Your task to perform on an android device: Show the shopping cart on walmart. Search for acer nitro on walmart, select the first entry, add it to the cart, then select checkout. Image 0: 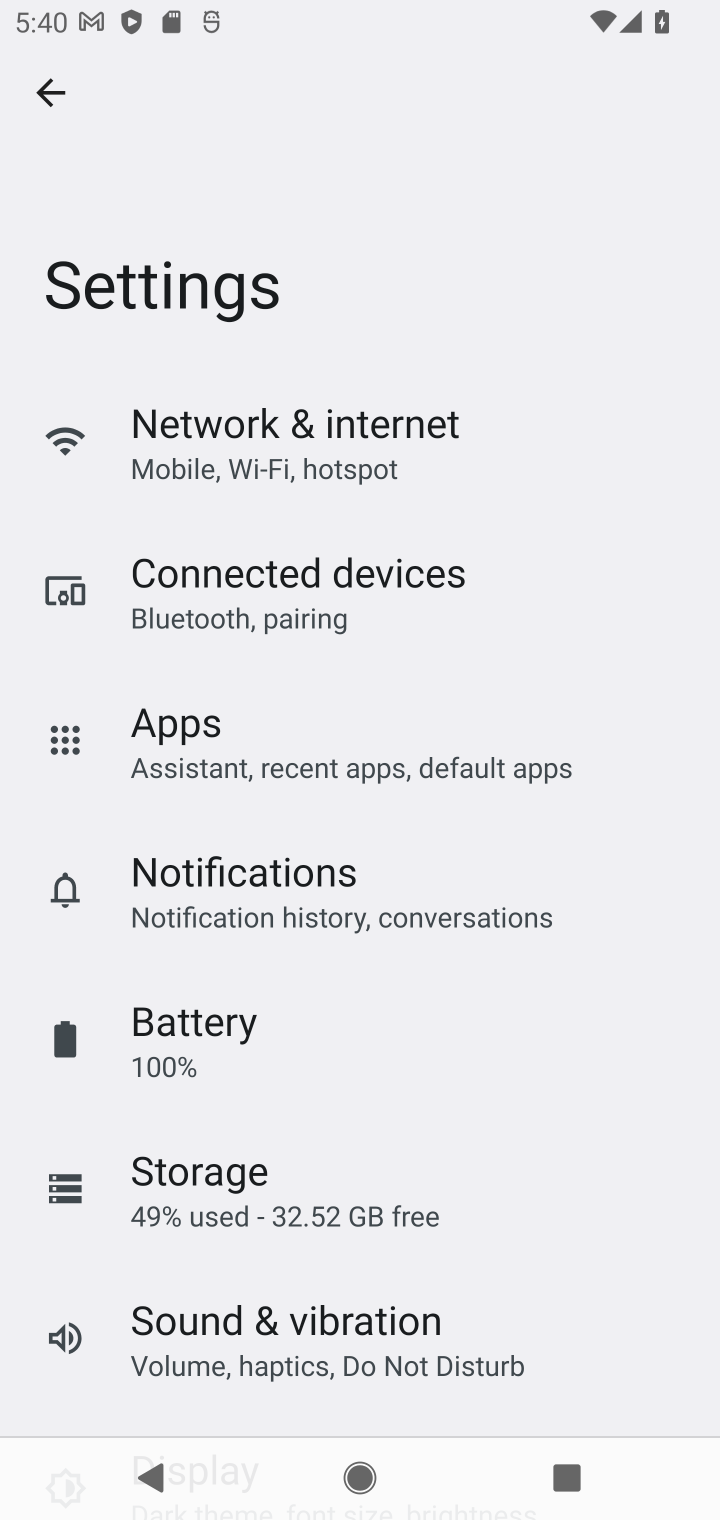
Step 0: press home button
Your task to perform on an android device: Show the shopping cart on walmart. Search for acer nitro on walmart, select the first entry, add it to the cart, then select checkout. Image 1: 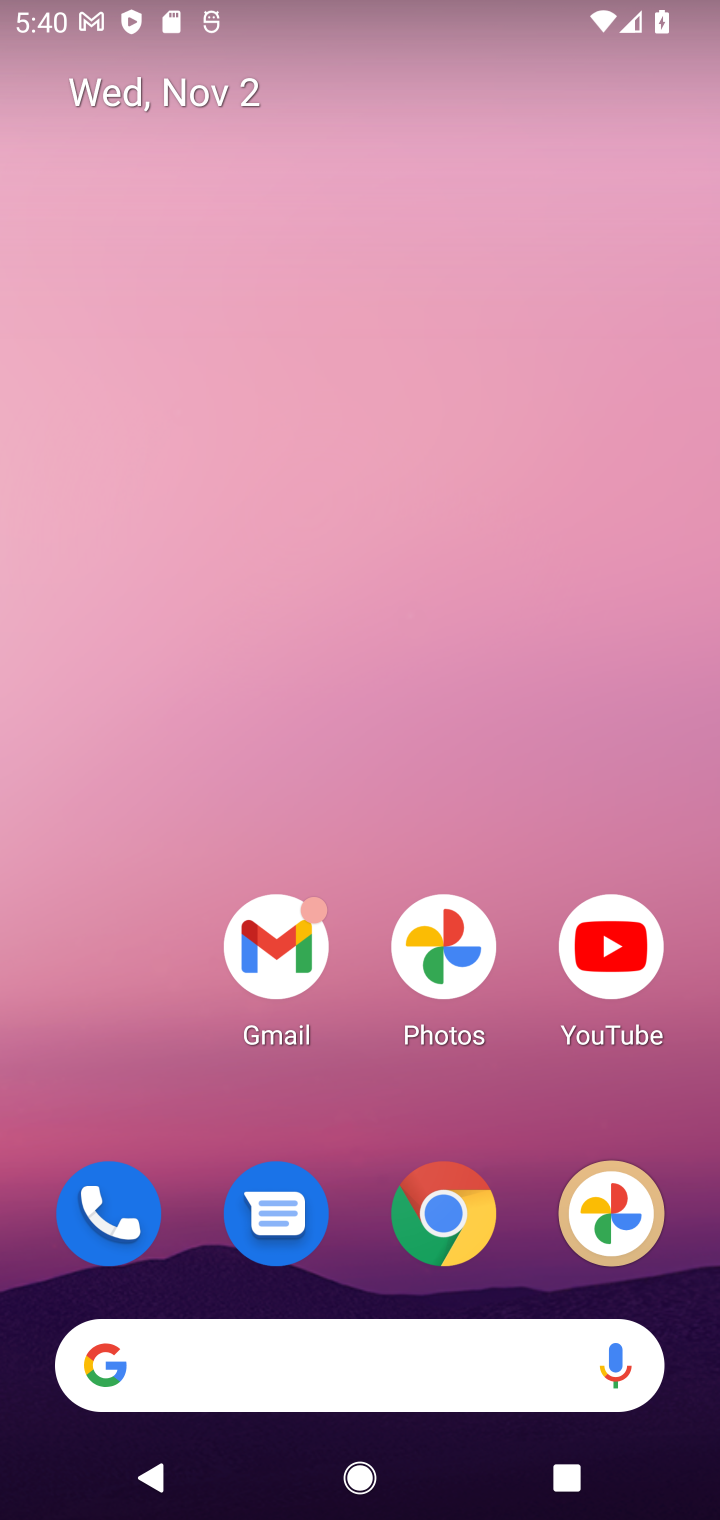
Step 1: click (442, 1214)
Your task to perform on an android device: Show the shopping cart on walmart. Search for acer nitro on walmart, select the first entry, add it to the cart, then select checkout. Image 2: 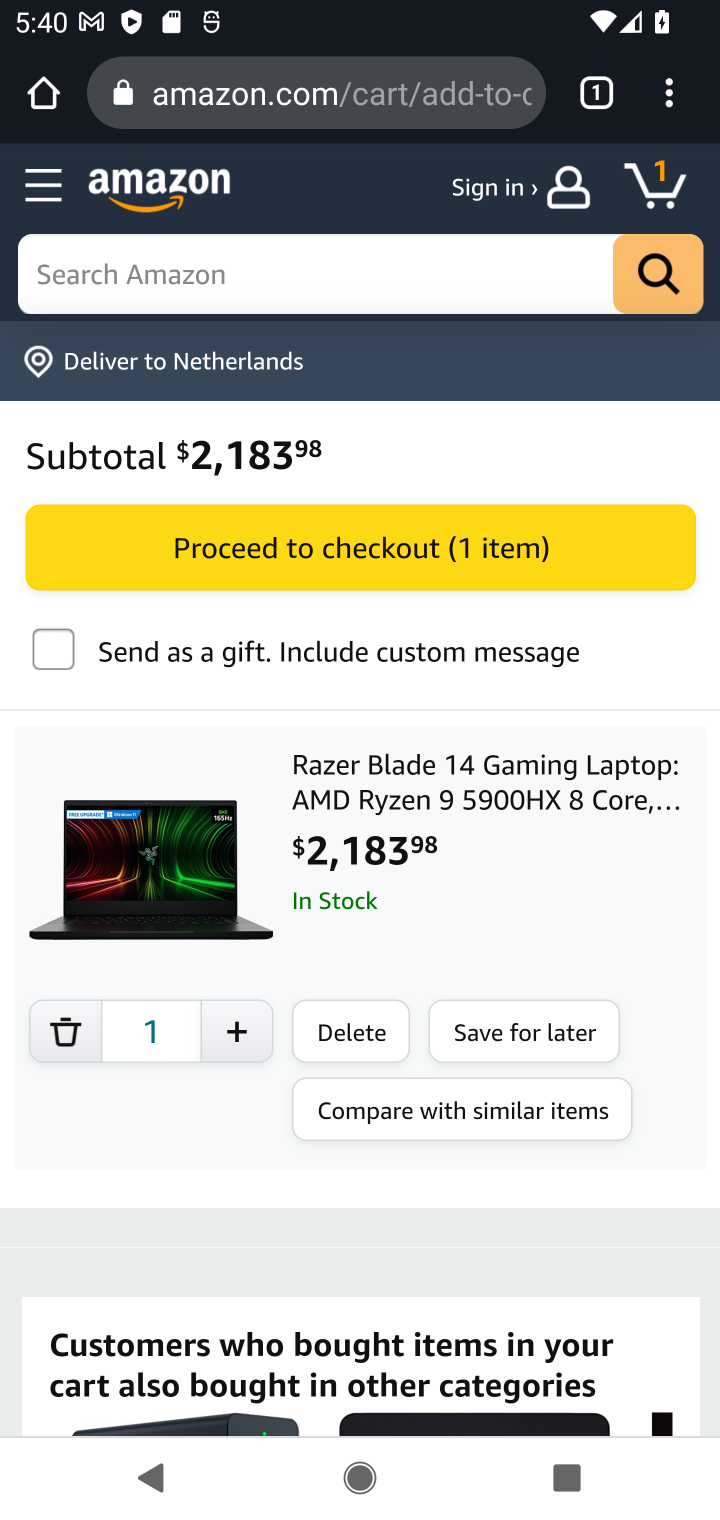
Step 2: click (347, 63)
Your task to perform on an android device: Show the shopping cart on walmart. Search for acer nitro on walmart, select the first entry, add it to the cart, then select checkout. Image 3: 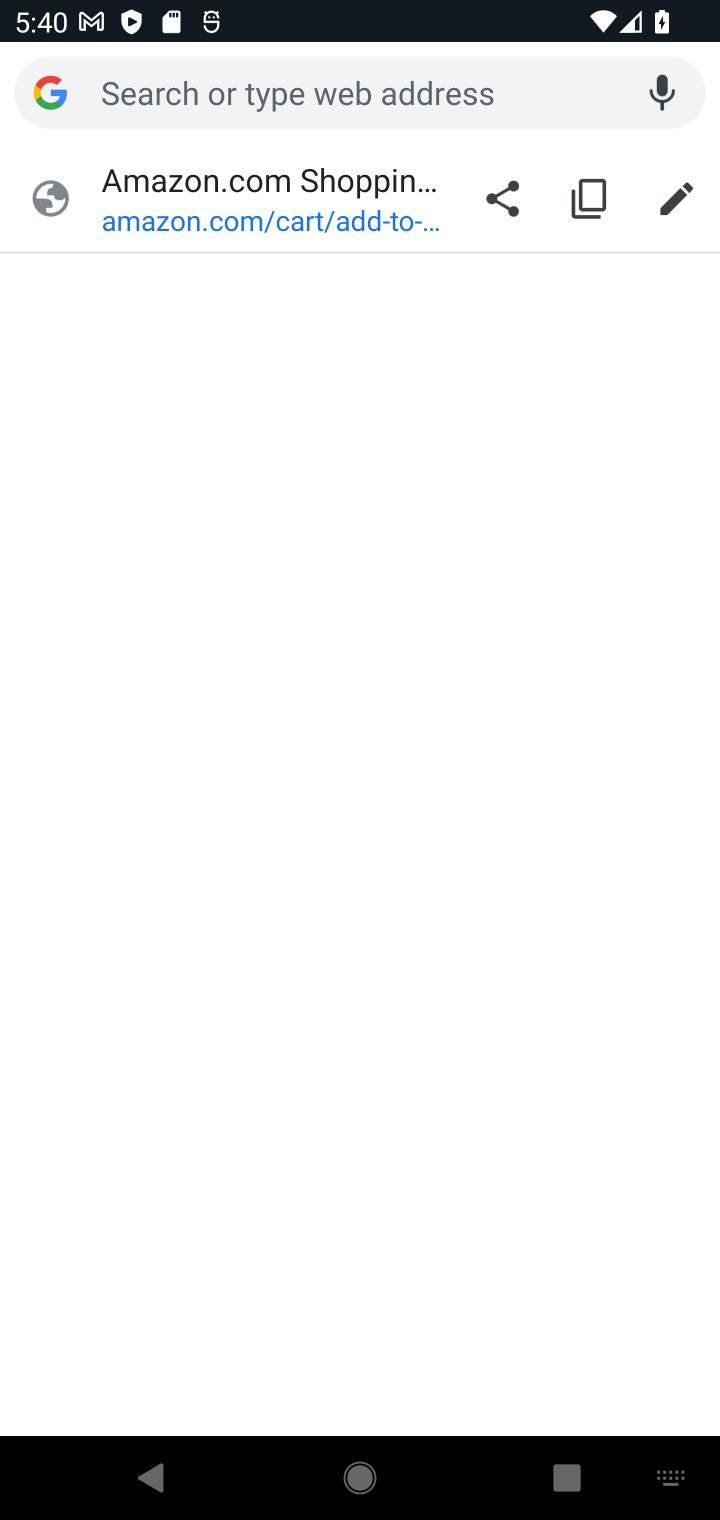
Step 3: type "walmart"
Your task to perform on an android device: Show the shopping cart on walmart. Search for acer nitro on walmart, select the first entry, add it to the cart, then select checkout. Image 4: 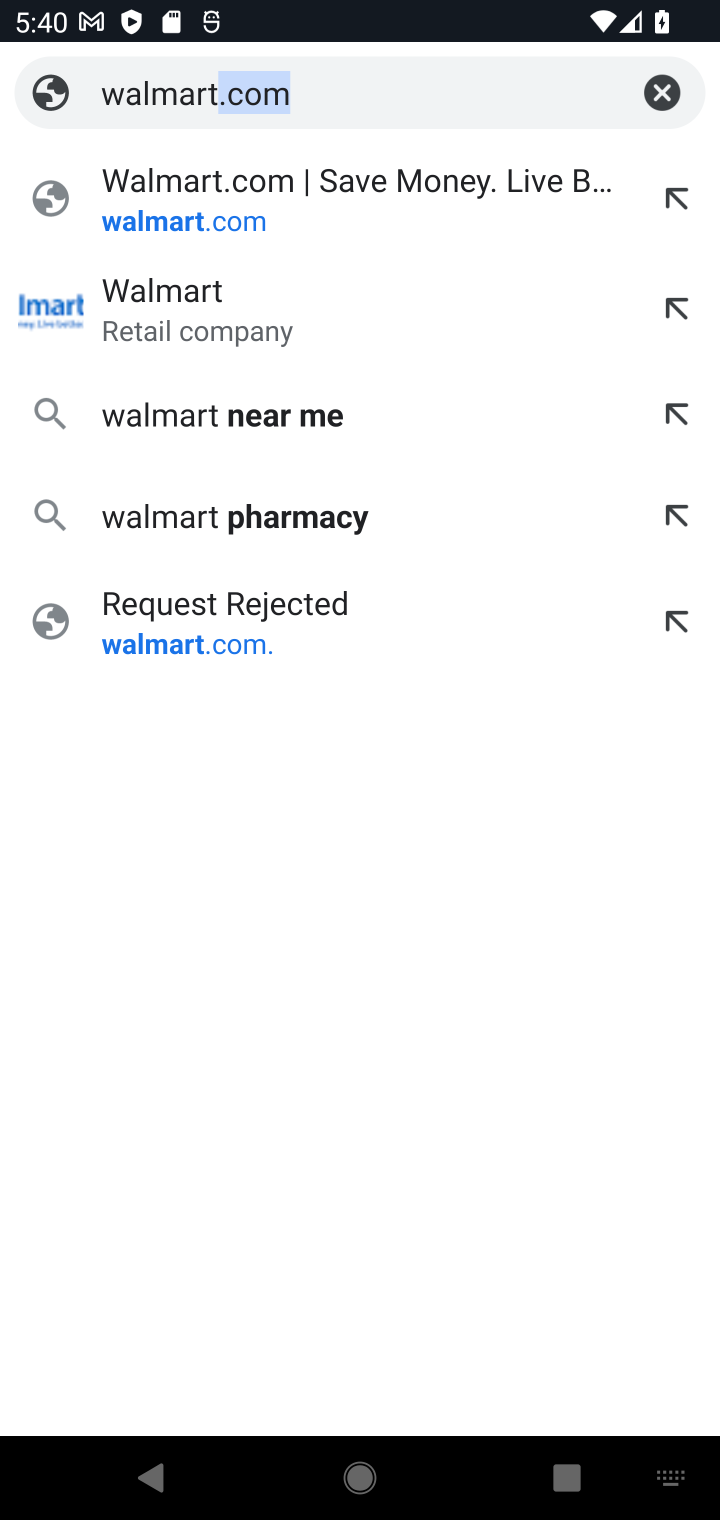
Step 4: click (150, 293)
Your task to perform on an android device: Show the shopping cart on walmart. Search for acer nitro on walmart, select the first entry, add it to the cart, then select checkout. Image 5: 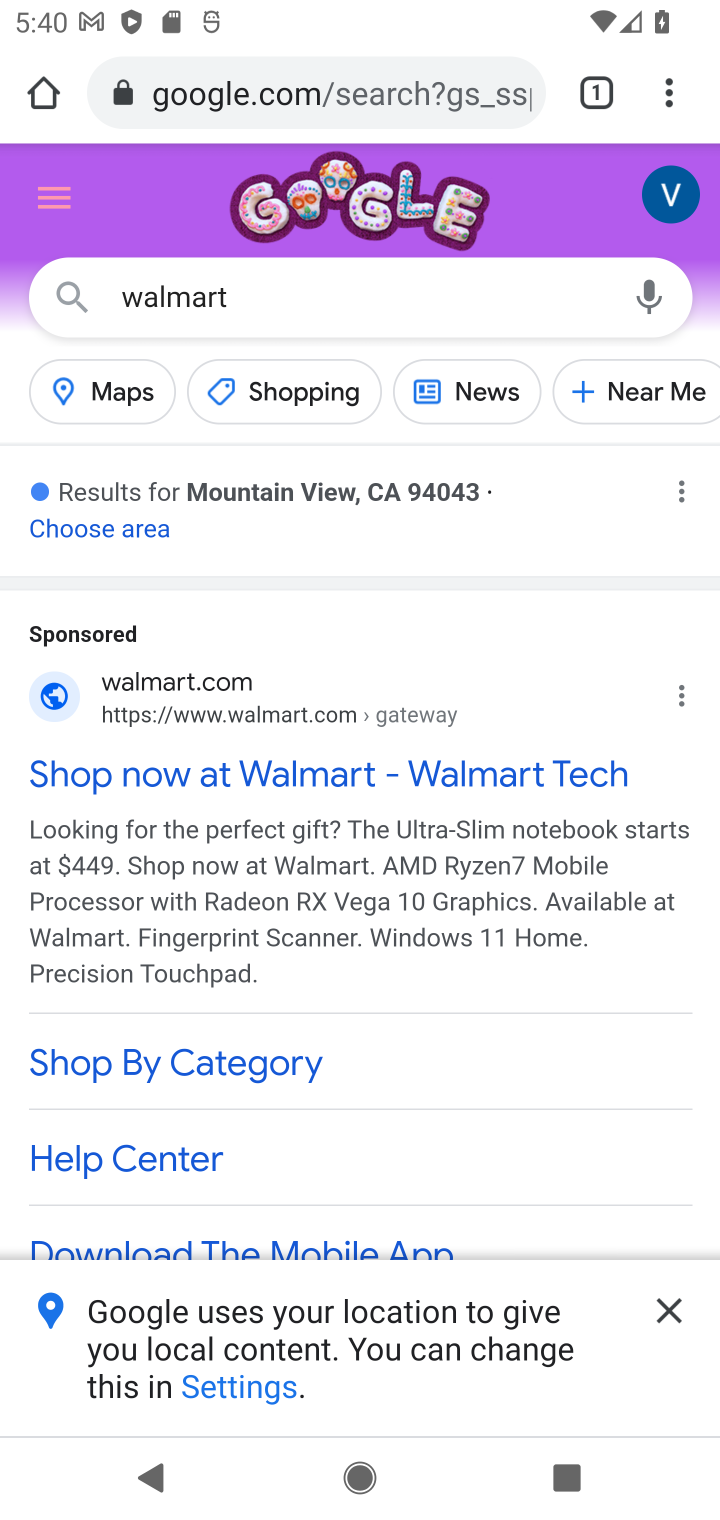
Step 5: click (172, 753)
Your task to perform on an android device: Show the shopping cart on walmart. Search for acer nitro on walmart, select the first entry, add it to the cart, then select checkout. Image 6: 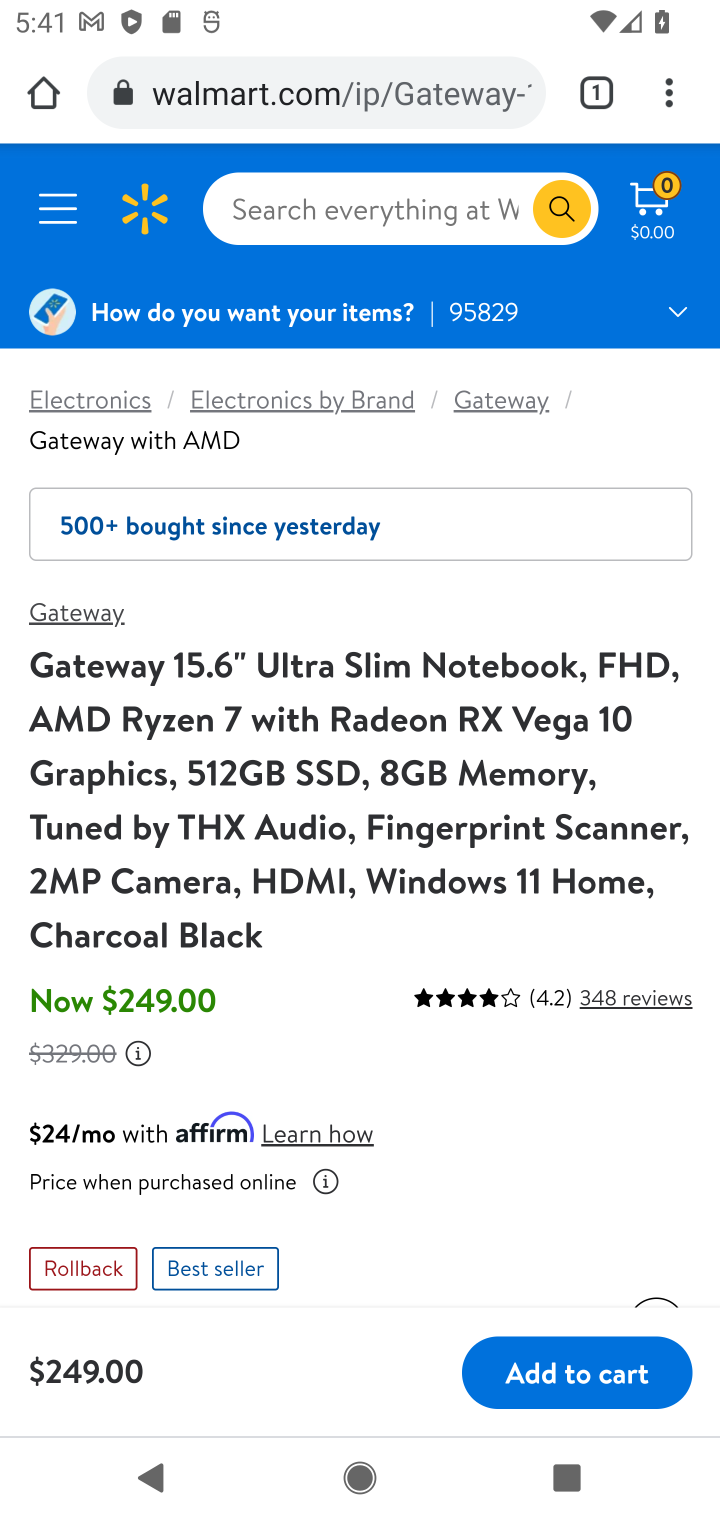
Step 6: drag from (391, 1097) to (359, 918)
Your task to perform on an android device: Show the shopping cart on walmart. Search for acer nitro on walmart, select the first entry, add it to the cart, then select checkout. Image 7: 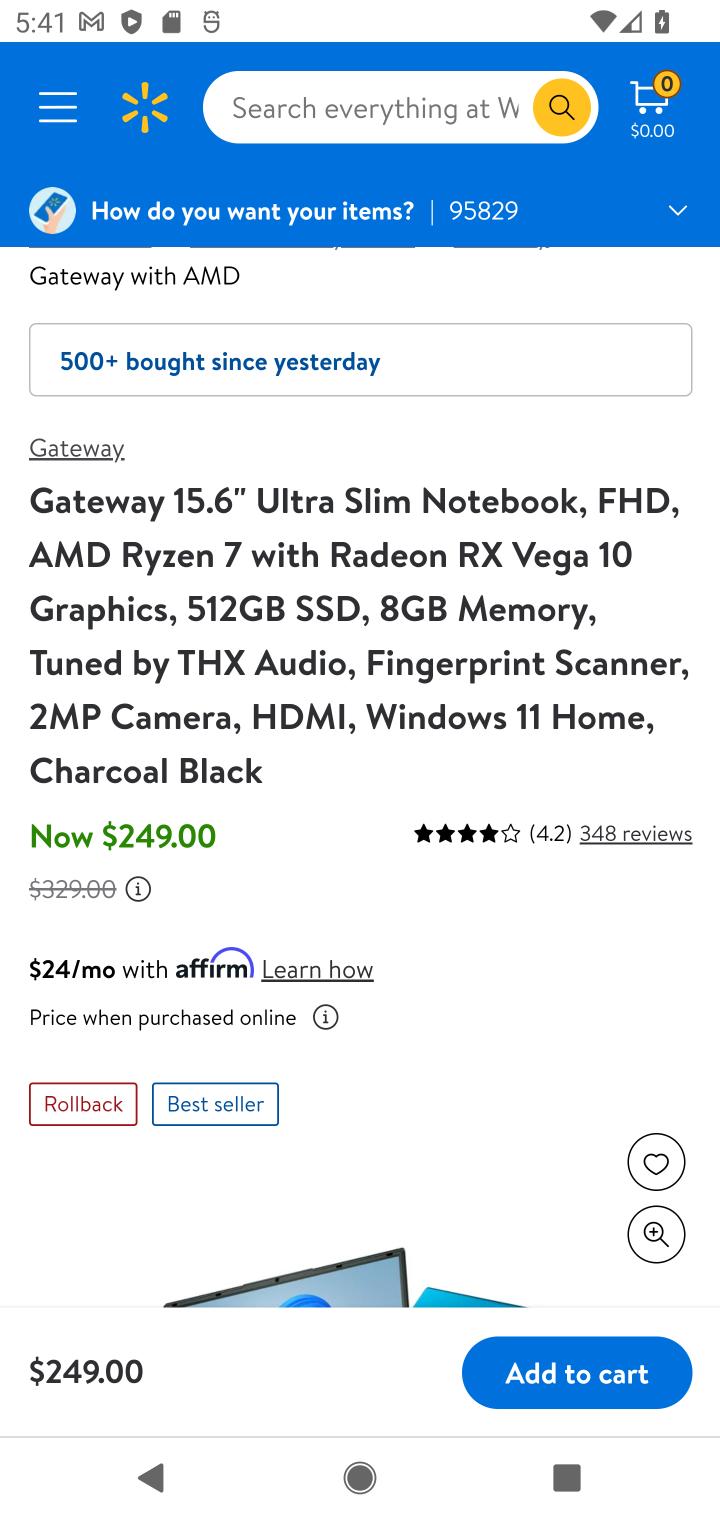
Step 7: click (660, 100)
Your task to perform on an android device: Show the shopping cart on walmart. Search for acer nitro on walmart, select the first entry, add it to the cart, then select checkout. Image 8: 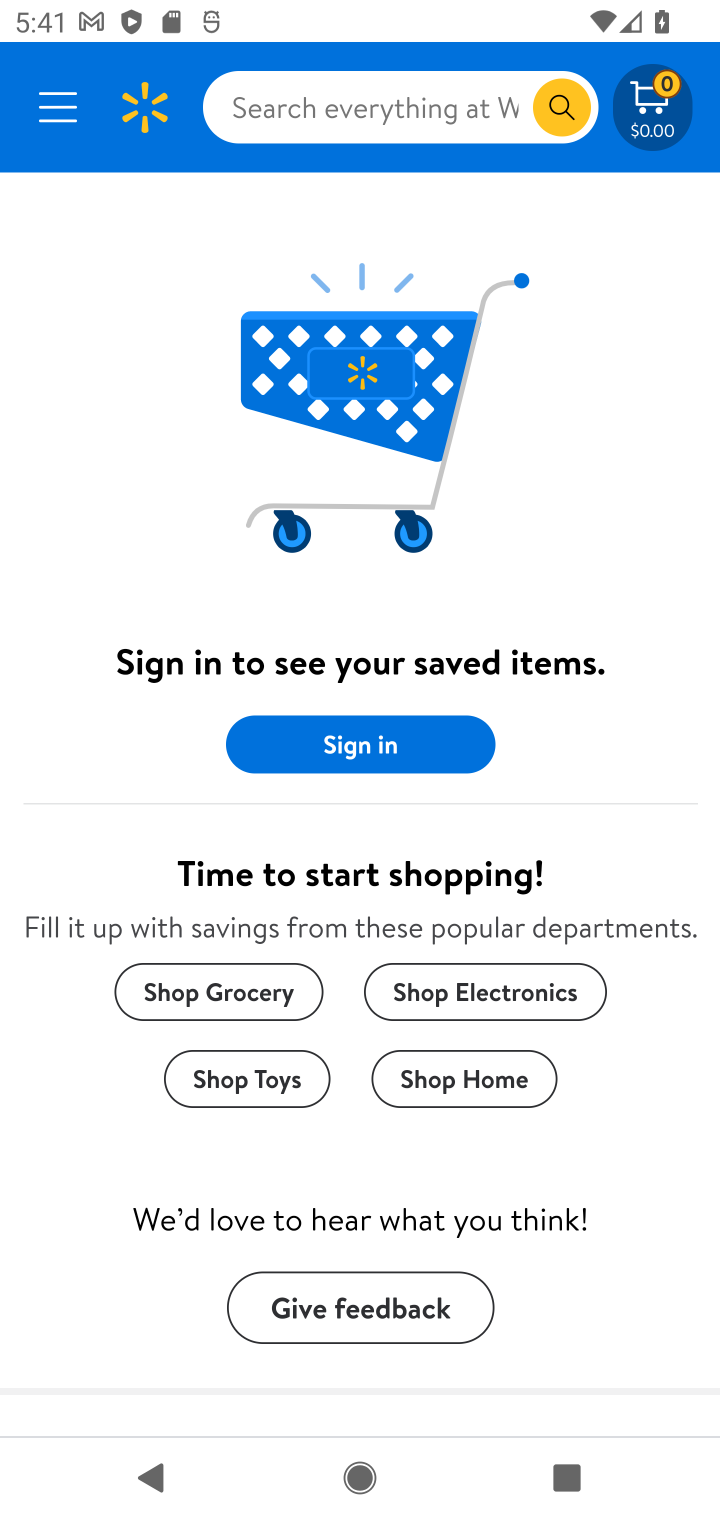
Step 8: click (345, 123)
Your task to perform on an android device: Show the shopping cart on walmart. Search for acer nitro on walmart, select the first entry, add it to the cart, then select checkout. Image 9: 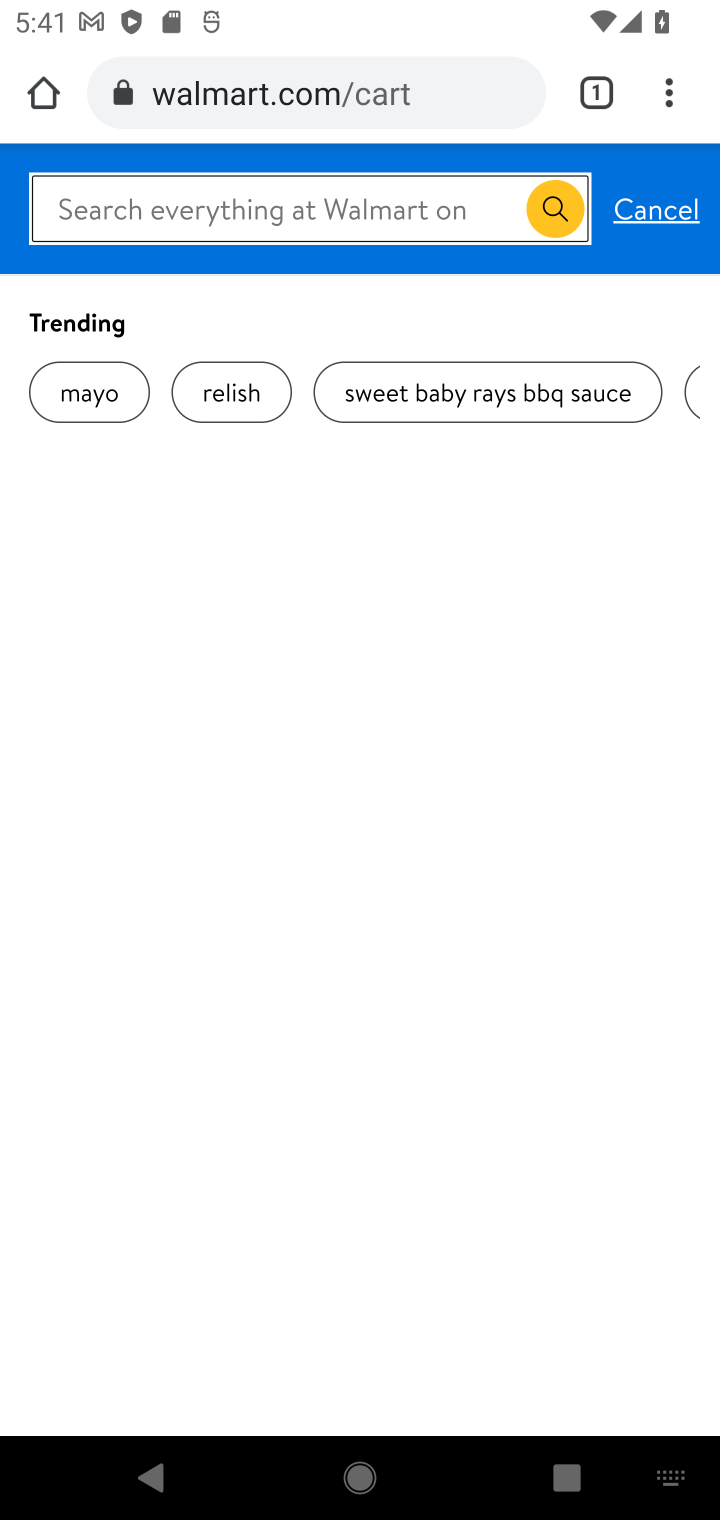
Step 9: type "acer nitro"
Your task to perform on an android device: Show the shopping cart on walmart. Search for acer nitro on walmart, select the first entry, add it to the cart, then select checkout. Image 10: 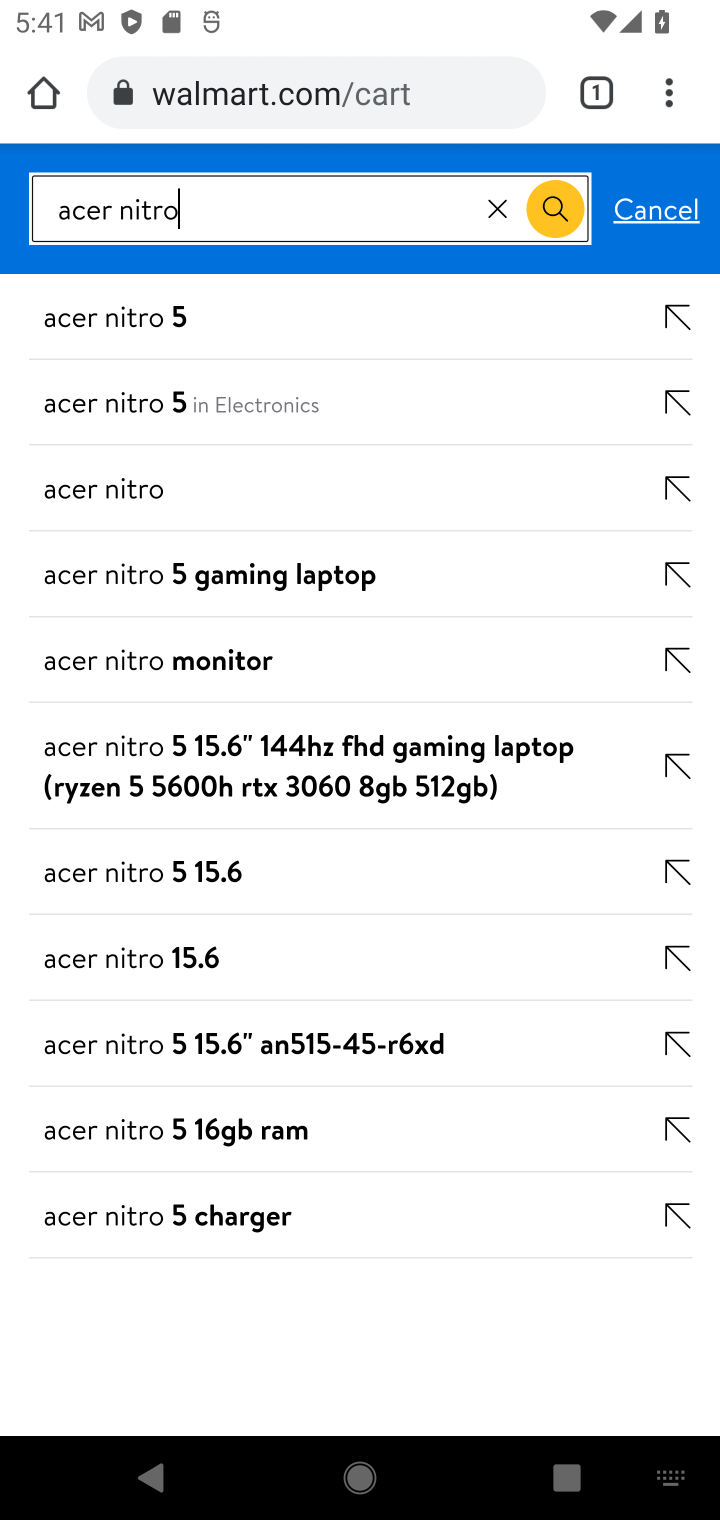
Step 10: click (100, 303)
Your task to perform on an android device: Show the shopping cart on walmart. Search for acer nitro on walmart, select the first entry, add it to the cart, then select checkout. Image 11: 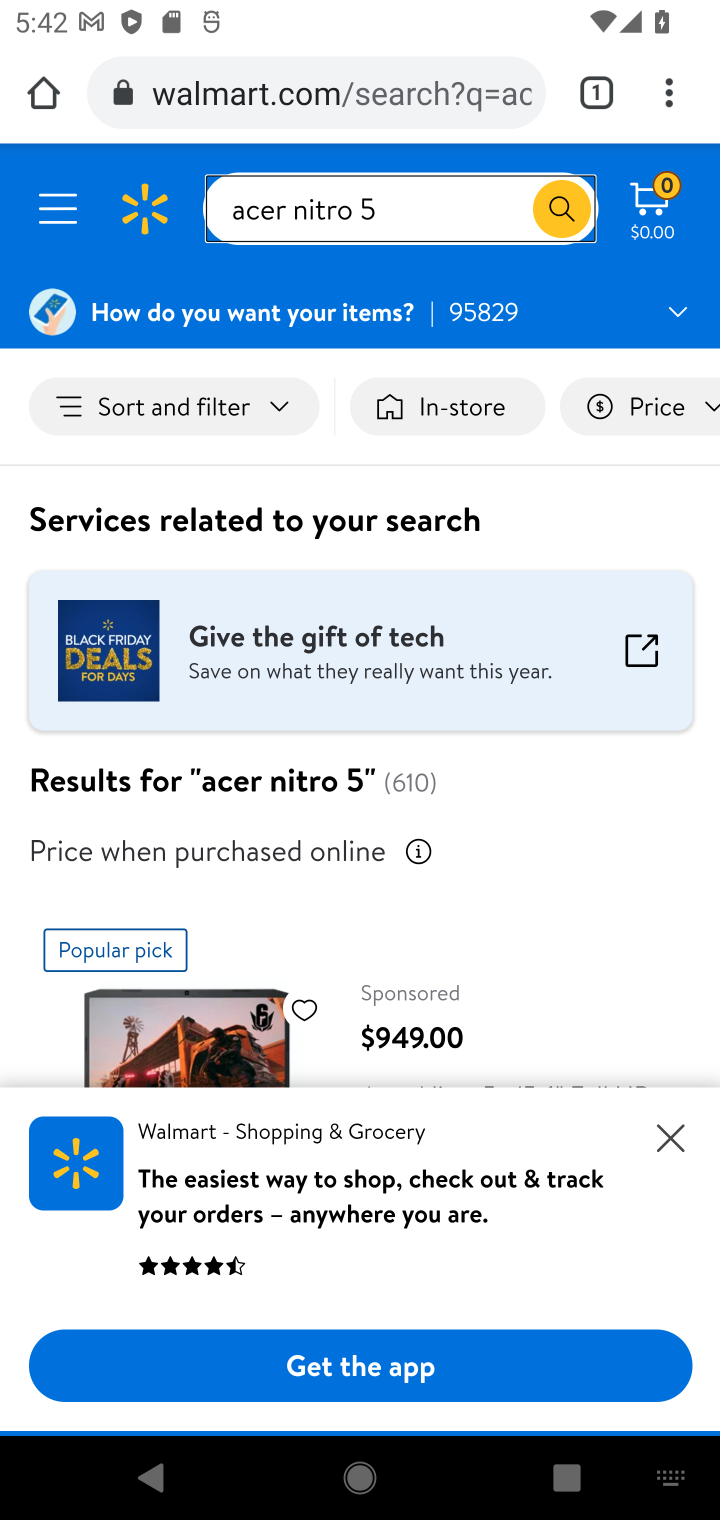
Step 11: drag from (375, 1036) to (361, 667)
Your task to perform on an android device: Show the shopping cart on walmart. Search for acer nitro on walmart, select the first entry, add it to the cart, then select checkout. Image 12: 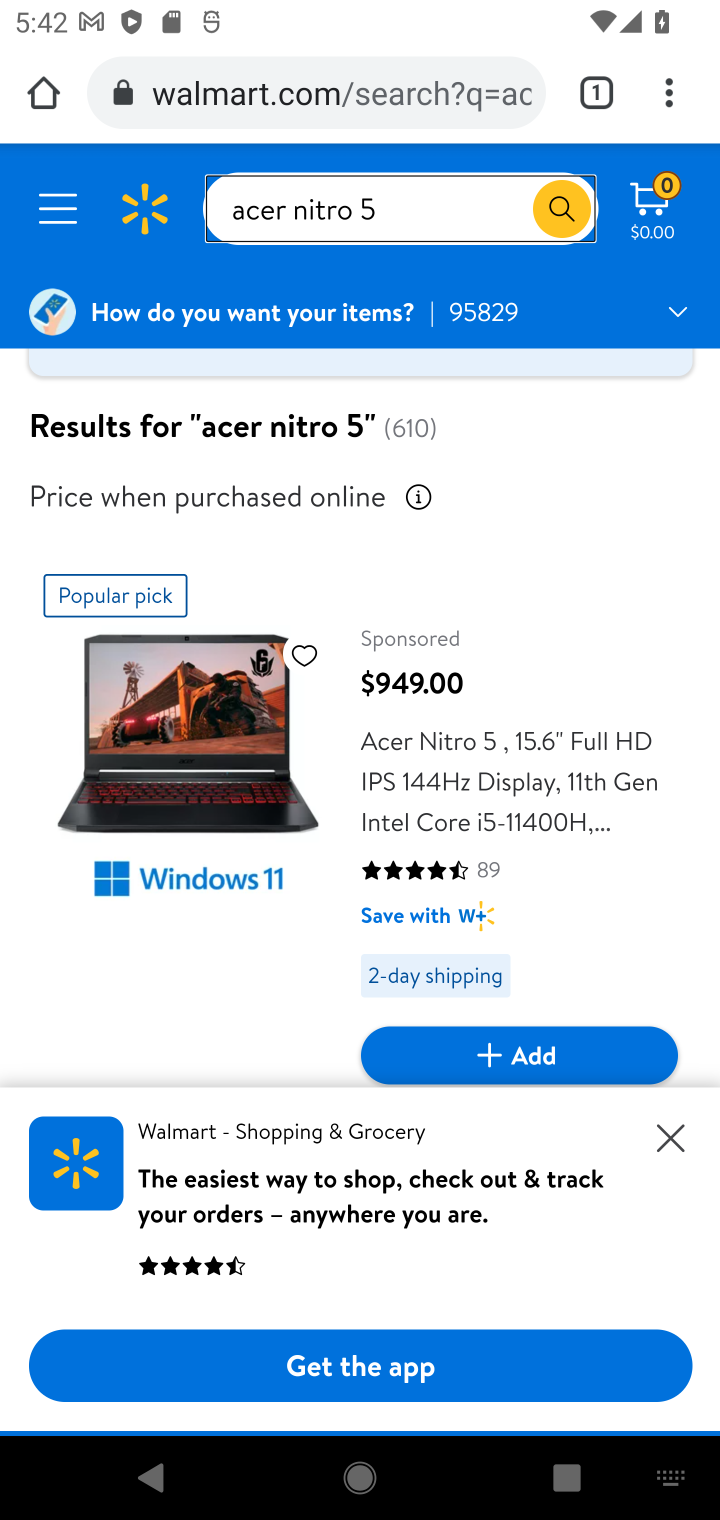
Step 12: click (490, 1047)
Your task to perform on an android device: Show the shopping cart on walmart. Search for acer nitro on walmart, select the first entry, add it to the cart, then select checkout. Image 13: 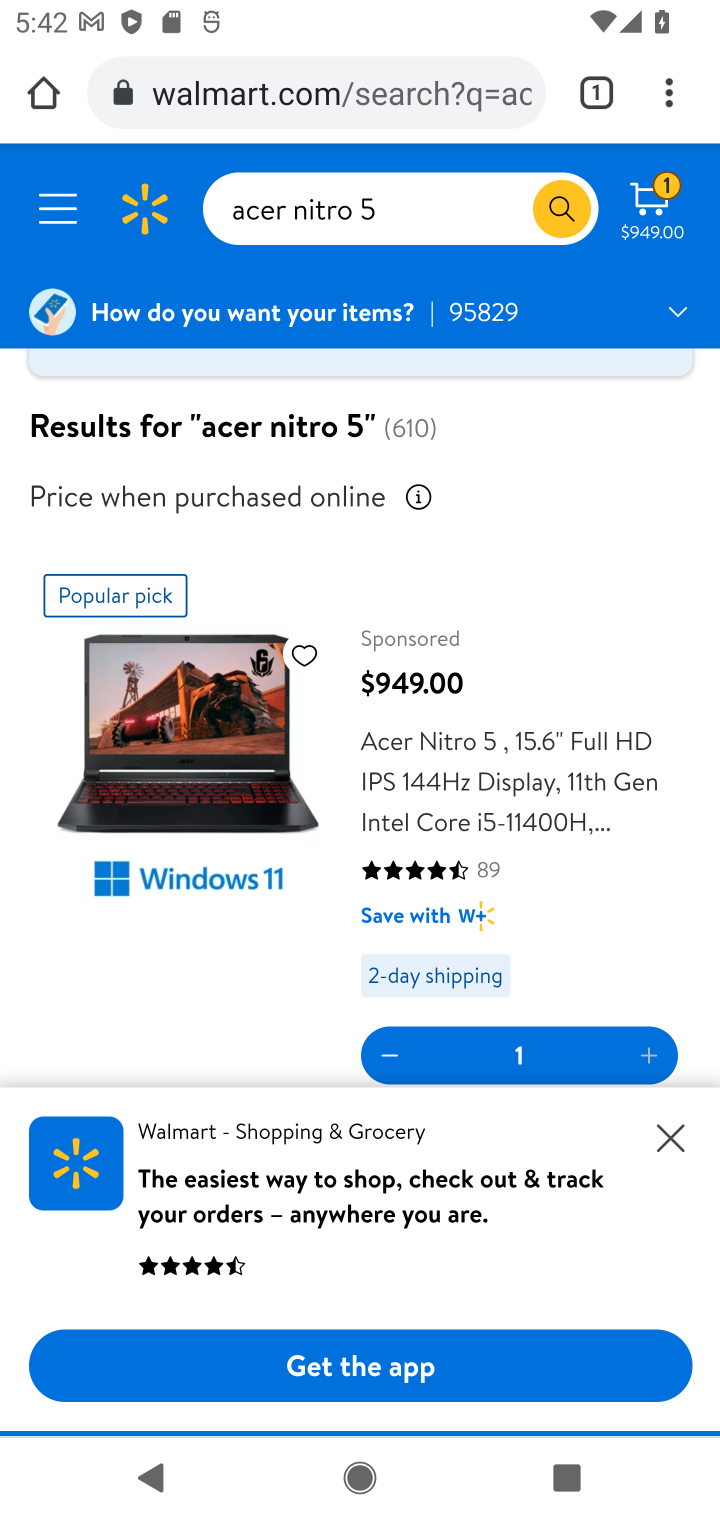
Step 13: click (657, 190)
Your task to perform on an android device: Show the shopping cart on walmart. Search for acer nitro on walmart, select the first entry, add it to the cart, then select checkout. Image 14: 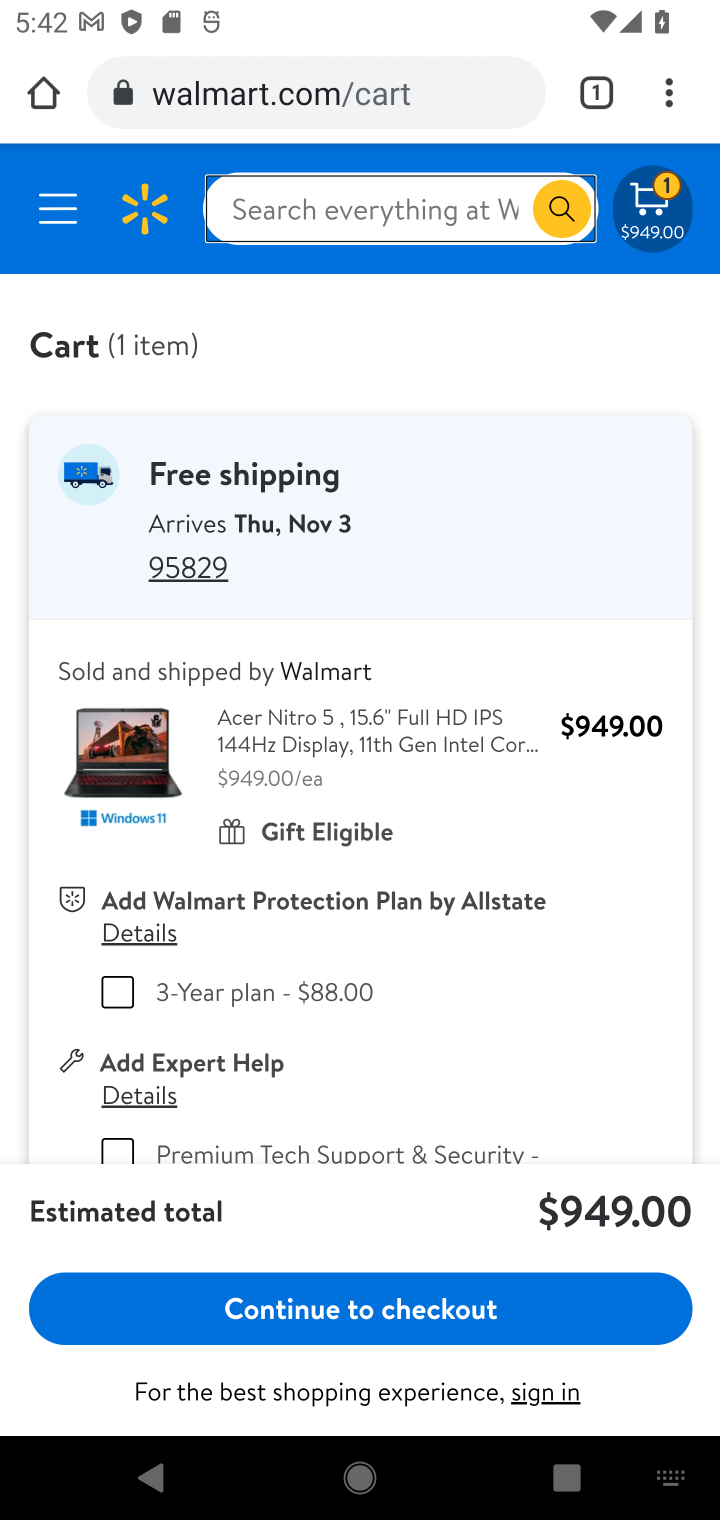
Step 14: click (381, 1313)
Your task to perform on an android device: Show the shopping cart on walmart. Search for acer nitro on walmart, select the first entry, add it to the cart, then select checkout. Image 15: 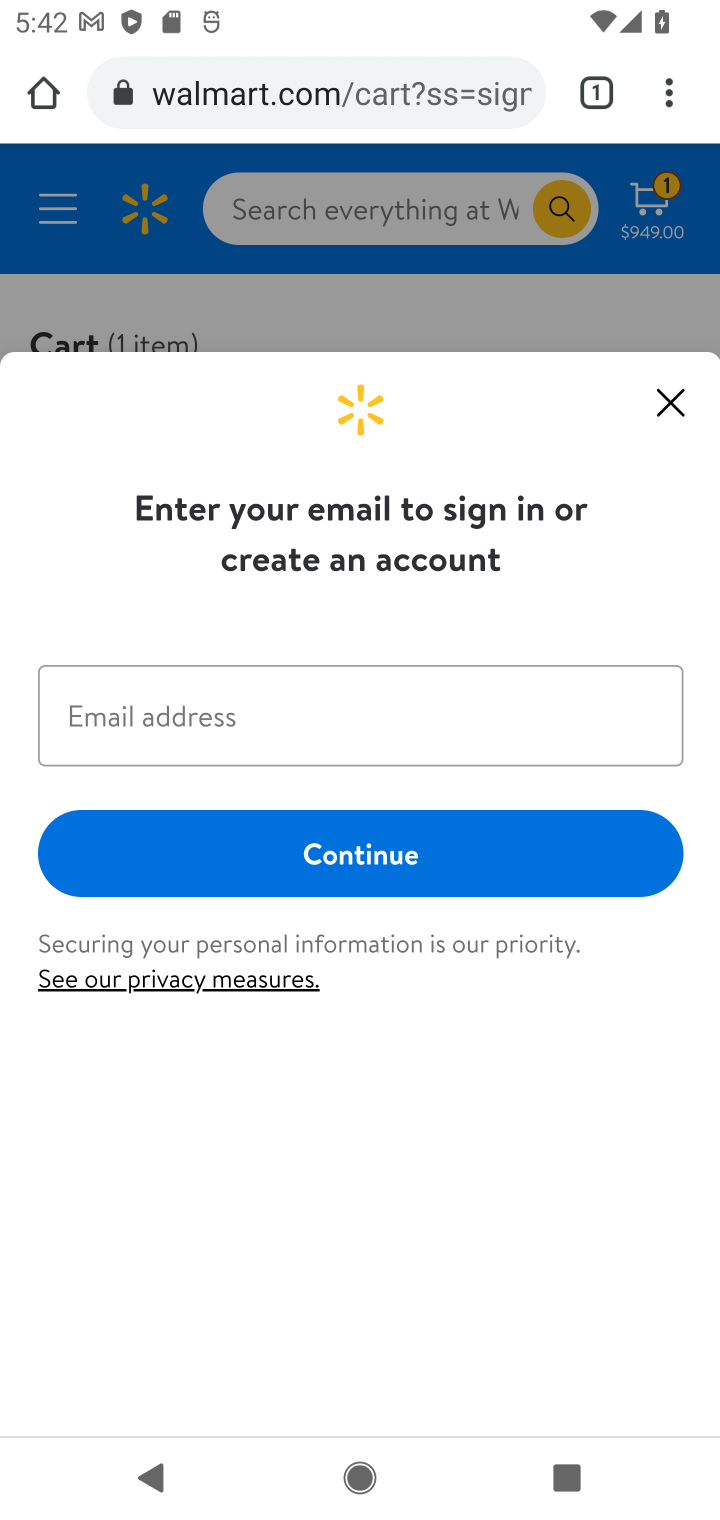
Step 15: task complete